Your task to perform on an android device: Go to ESPN.com Image 0: 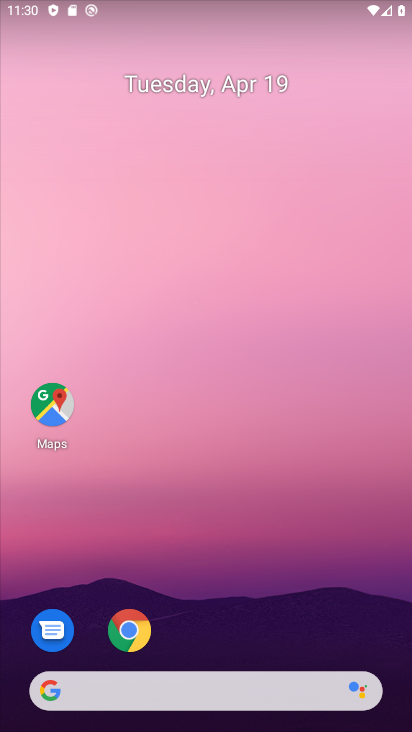
Step 0: drag from (253, 632) to (312, 44)
Your task to perform on an android device: Go to ESPN.com Image 1: 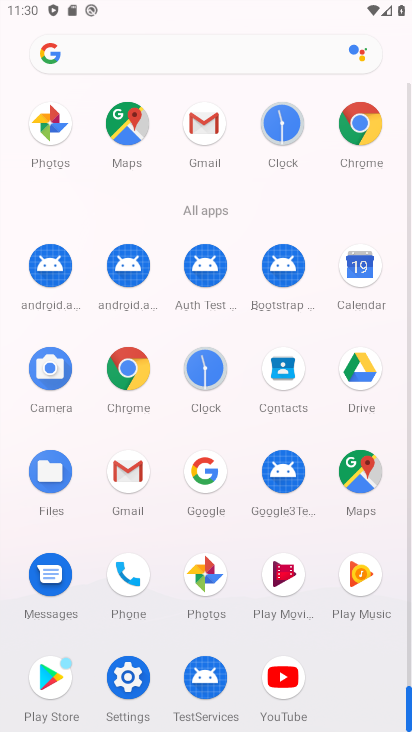
Step 1: click (138, 370)
Your task to perform on an android device: Go to ESPN.com Image 2: 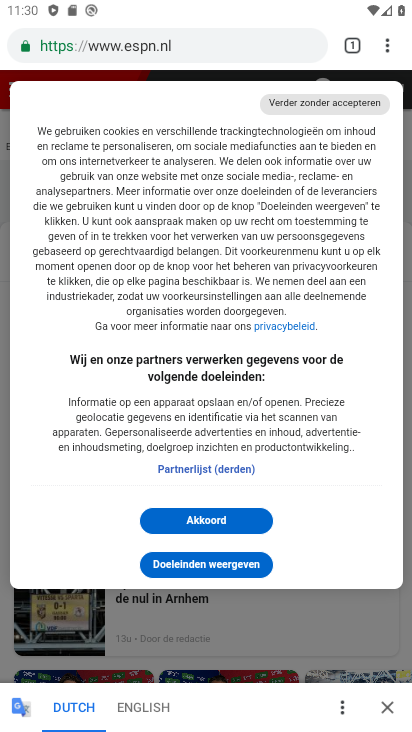
Step 2: click (212, 50)
Your task to perform on an android device: Go to ESPN.com Image 3: 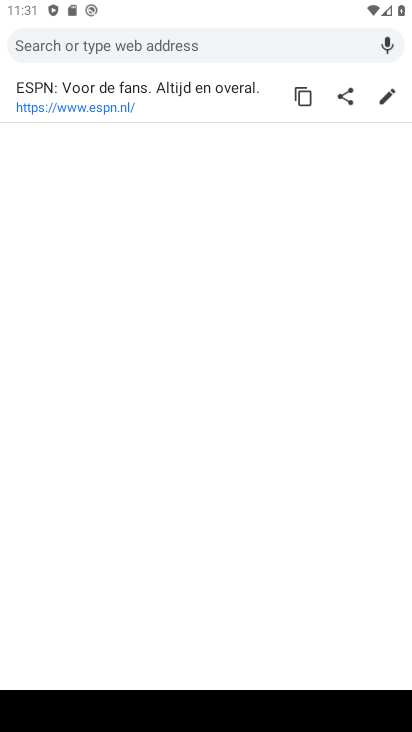
Step 3: type "ESPN.com"
Your task to perform on an android device: Go to ESPN.com Image 4: 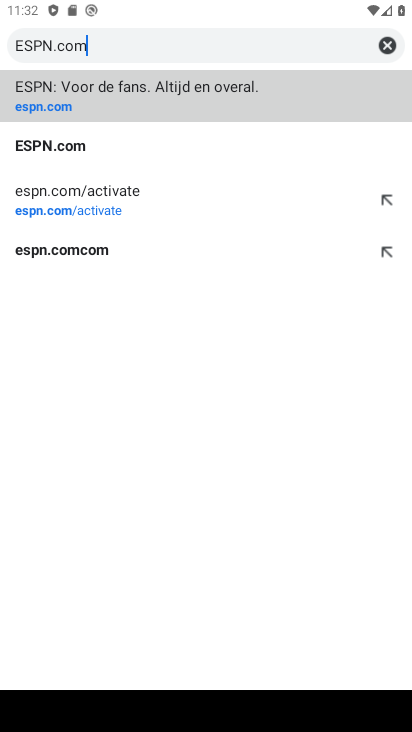
Step 4: click (44, 104)
Your task to perform on an android device: Go to ESPN.com Image 5: 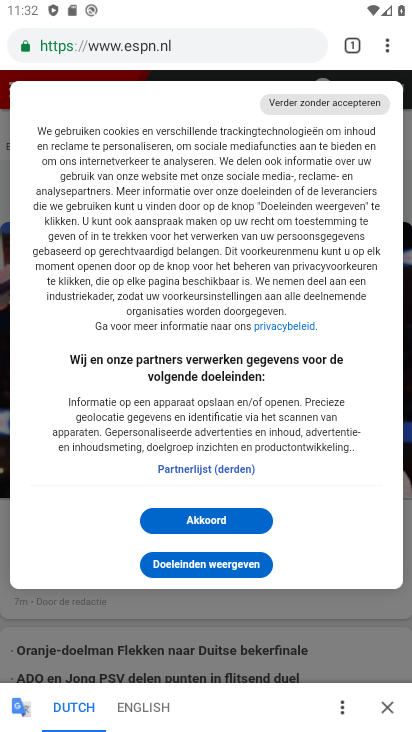
Step 5: task complete